Your task to perform on an android device: turn off javascript in the chrome app Image 0: 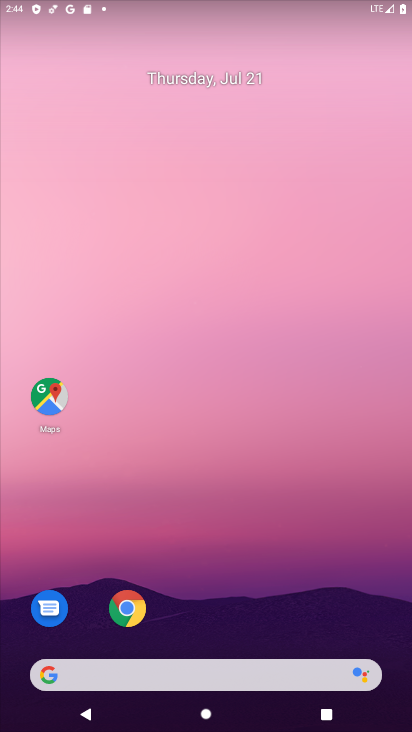
Step 0: drag from (187, 651) to (203, 126)
Your task to perform on an android device: turn off javascript in the chrome app Image 1: 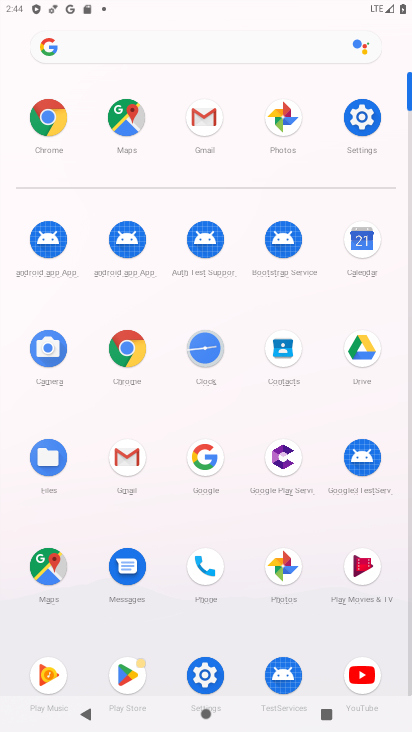
Step 1: click (34, 122)
Your task to perform on an android device: turn off javascript in the chrome app Image 2: 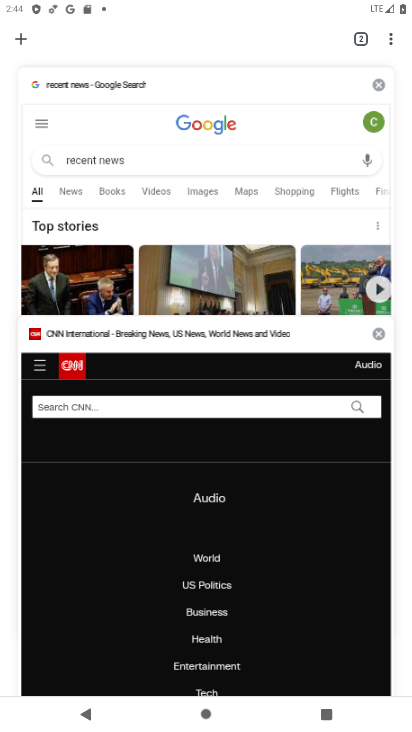
Step 2: click (278, 118)
Your task to perform on an android device: turn off javascript in the chrome app Image 3: 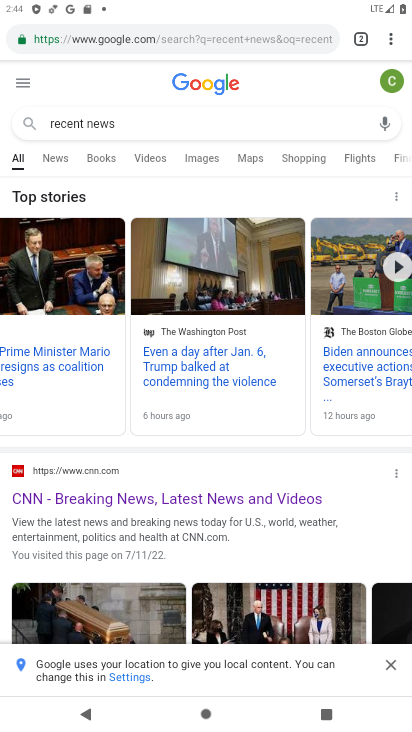
Step 3: click (391, 41)
Your task to perform on an android device: turn off javascript in the chrome app Image 4: 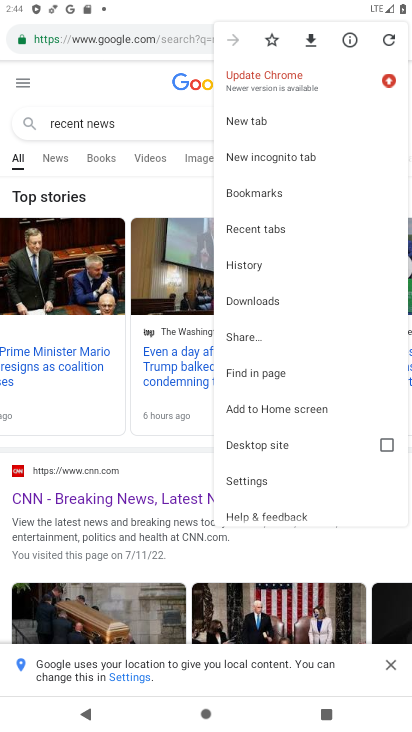
Step 4: click (248, 472)
Your task to perform on an android device: turn off javascript in the chrome app Image 5: 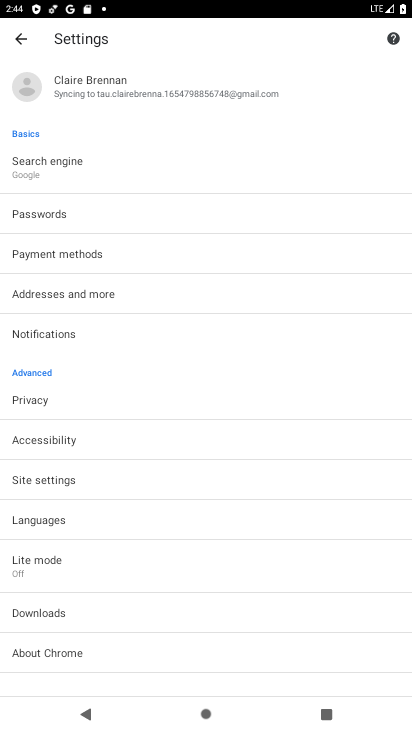
Step 5: click (44, 493)
Your task to perform on an android device: turn off javascript in the chrome app Image 6: 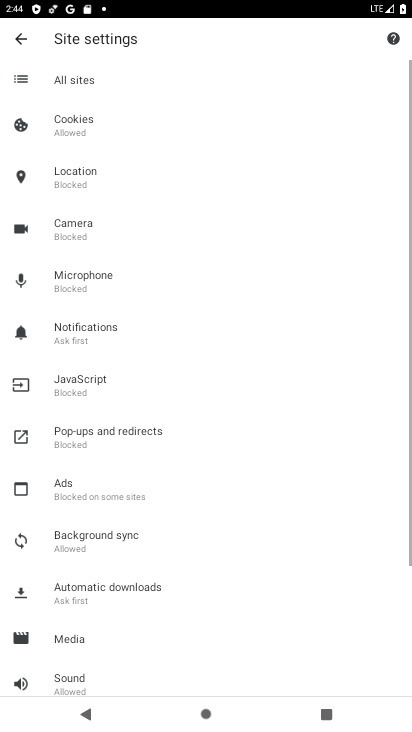
Step 6: click (79, 386)
Your task to perform on an android device: turn off javascript in the chrome app Image 7: 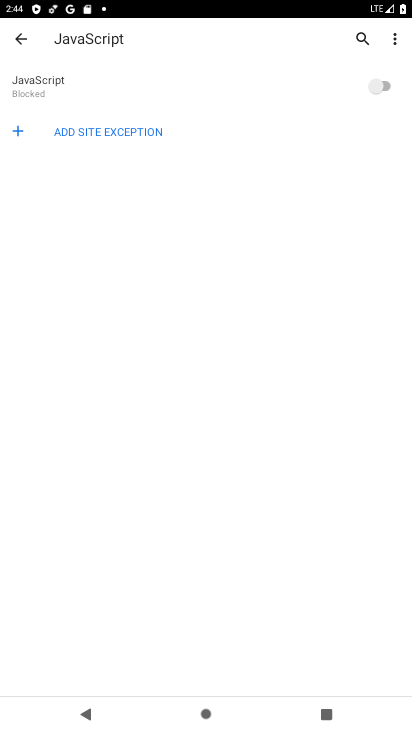
Step 7: task complete